Your task to perform on an android device: Show me popular videos on Youtube Image 0: 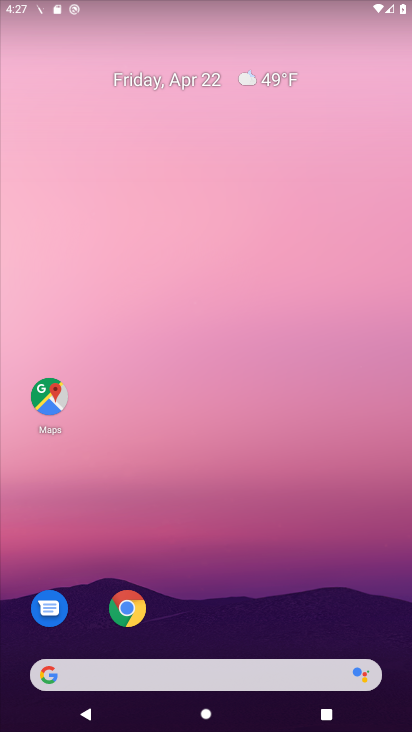
Step 0: drag from (254, 662) to (366, 77)
Your task to perform on an android device: Show me popular videos on Youtube Image 1: 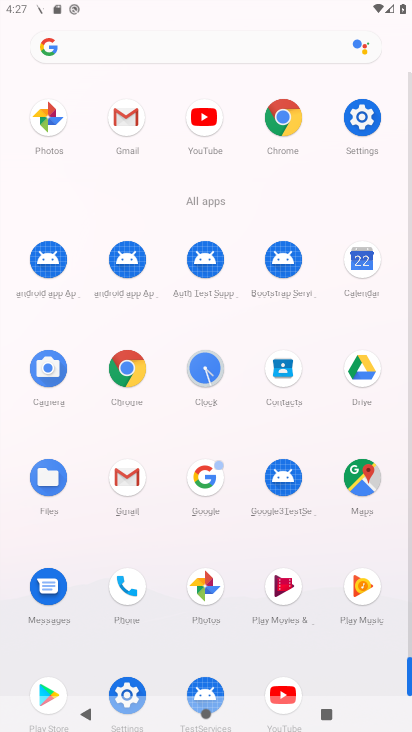
Step 1: drag from (300, 585) to (388, 185)
Your task to perform on an android device: Show me popular videos on Youtube Image 2: 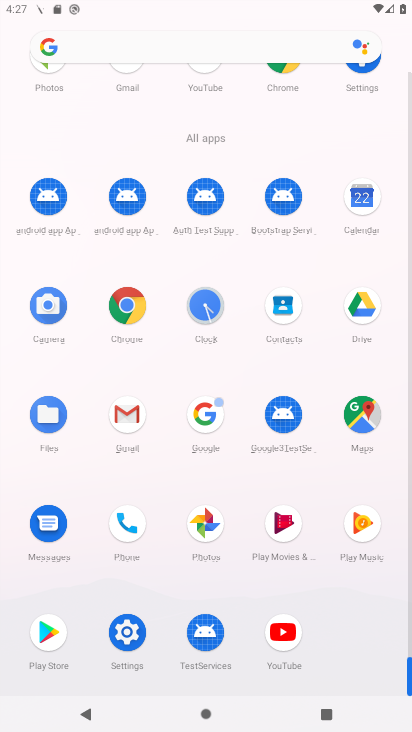
Step 2: click (289, 640)
Your task to perform on an android device: Show me popular videos on Youtube Image 3: 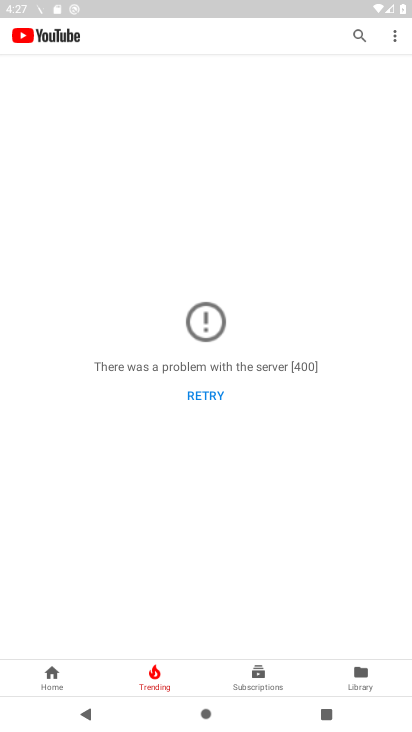
Step 3: task complete